Your task to perform on an android device: turn off picture-in-picture Image 0: 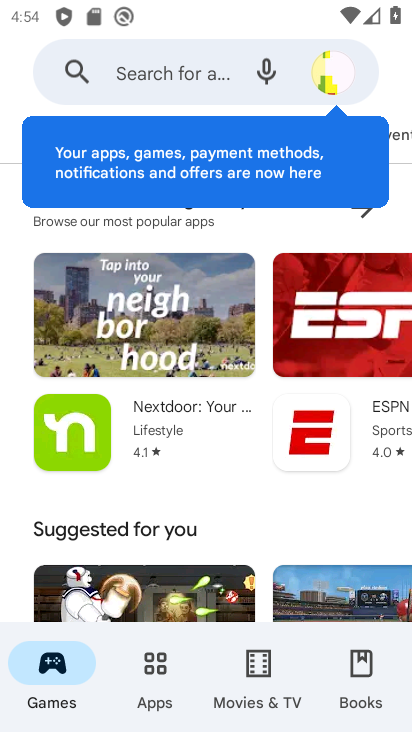
Step 0: press home button
Your task to perform on an android device: turn off picture-in-picture Image 1: 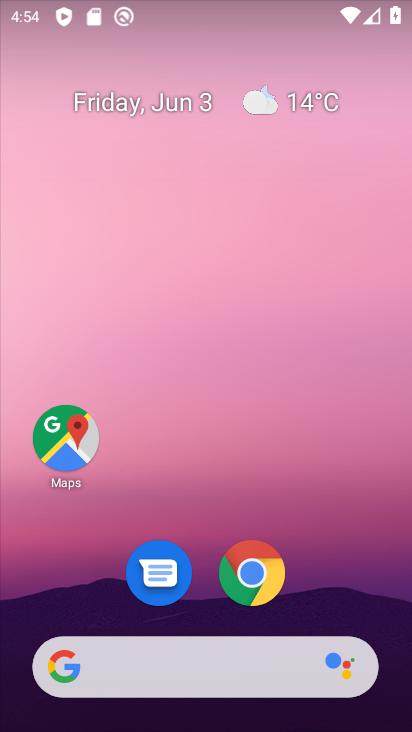
Step 1: click (252, 576)
Your task to perform on an android device: turn off picture-in-picture Image 2: 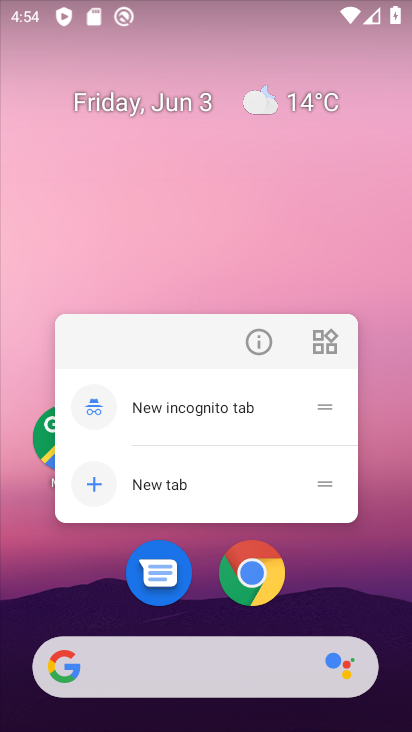
Step 2: click (253, 338)
Your task to perform on an android device: turn off picture-in-picture Image 3: 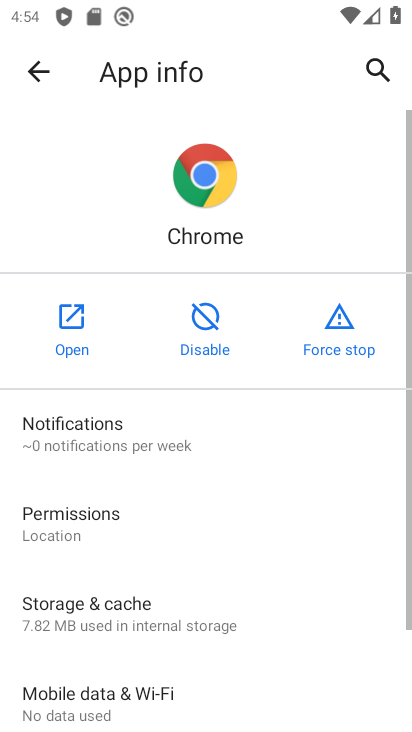
Step 3: drag from (229, 365) to (298, 0)
Your task to perform on an android device: turn off picture-in-picture Image 4: 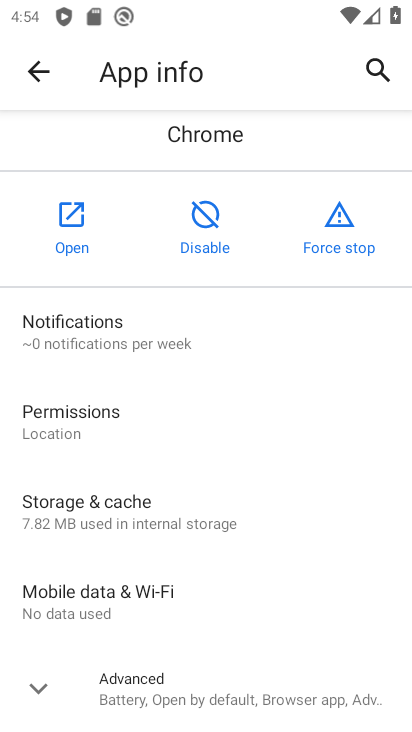
Step 4: click (141, 679)
Your task to perform on an android device: turn off picture-in-picture Image 5: 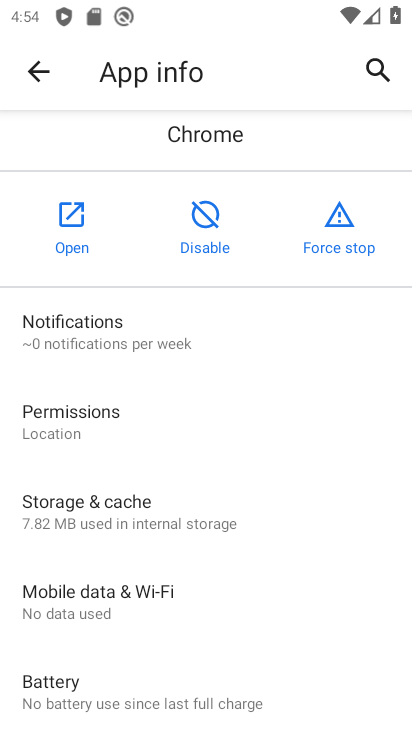
Step 5: drag from (280, 632) to (330, 22)
Your task to perform on an android device: turn off picture-in-picture Image 6: 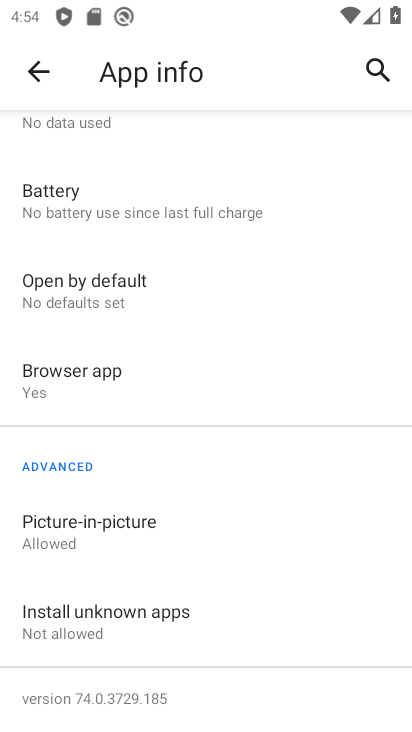
Step 6: click (121, 519)
Your task to perform on an android device: turn off picture-in-picture Image 7: 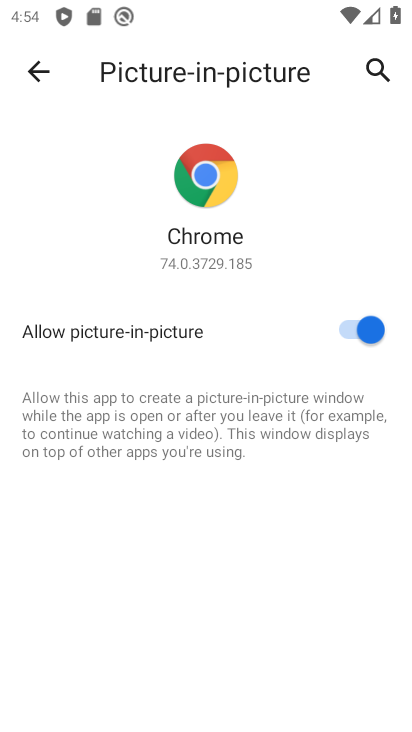
Step 7: click (350, 328)
Your task to perform on an android device: turn off picture-in-picture Image 8: 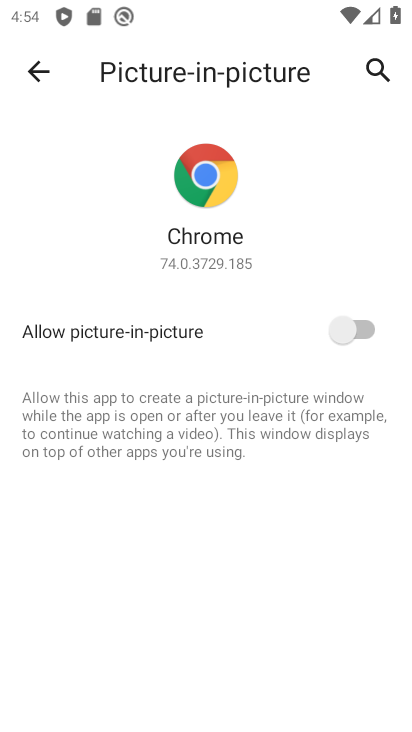
Step 8: task complete